Your task to perform on an android device: read, delete, or share a saved page in the chrome app Image 0: 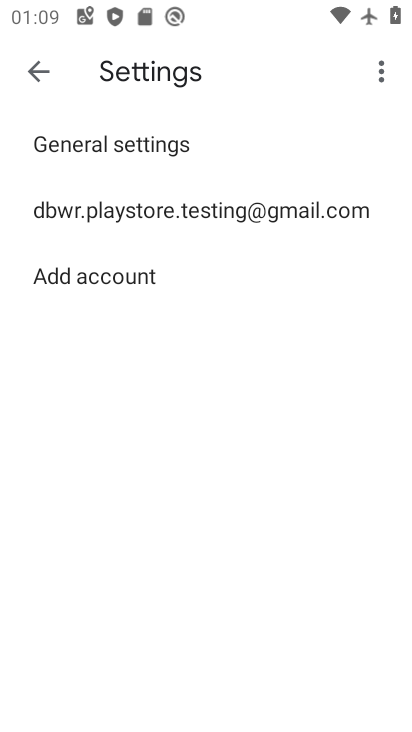
Step 0: press home button
Your task to perform on an android device: read, delete, or share a saved page in the chrome app Image 1: 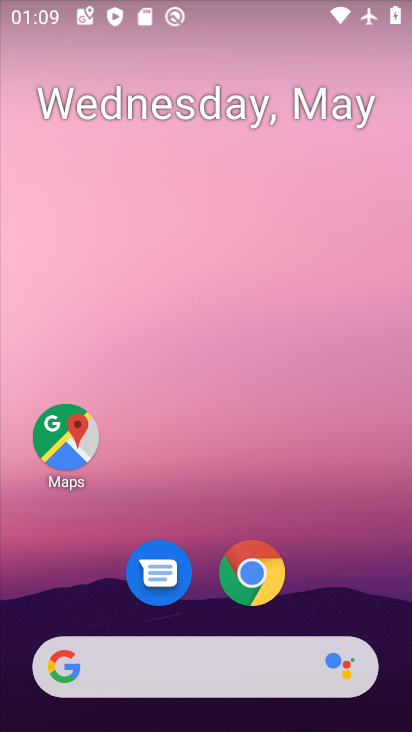
Step 1: drag from (330, 600) to (300, 218)
Your task to perform on an android device: read, delete, or share a saved page in the chrome app Image 2: 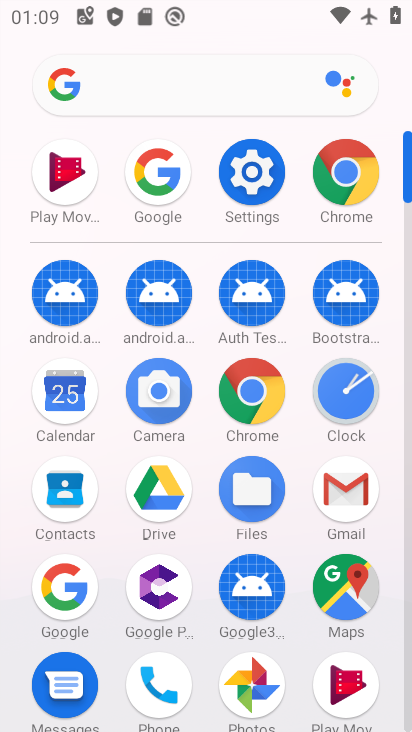
Step 2: click (343, 174)
Your task to perform on an android device: read, delete, or share a saved page in the chrome app Image 3: 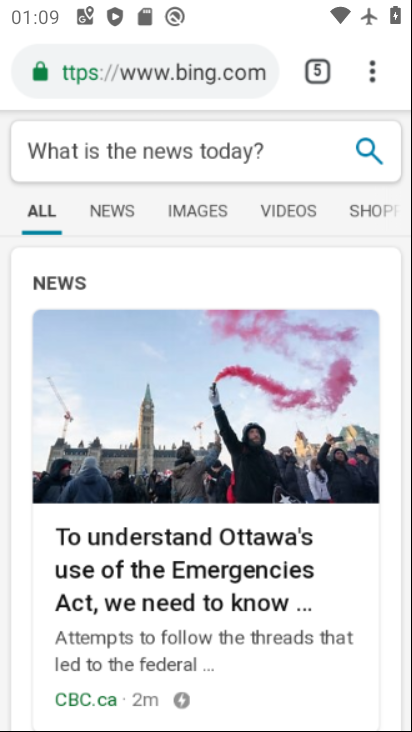
Step 3: click (364, 77)
Your task to perform on an android device: read, delete, or share a saved page in the chrome app Image 4: 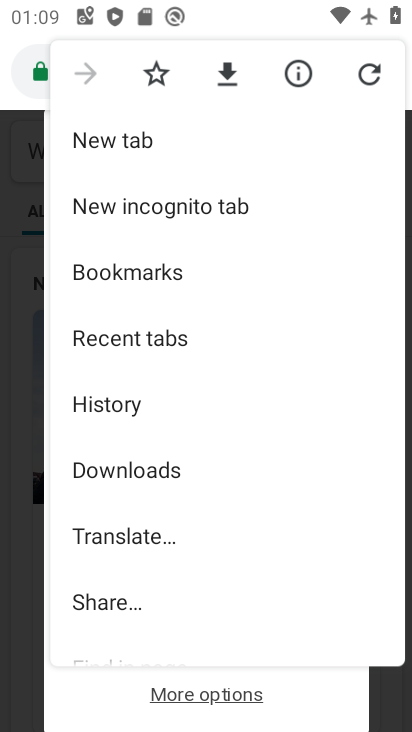
Step 4: click (152, 483)
Your task to perform on an android device: read, delete, or share a saved page in the chrome app Image 5: 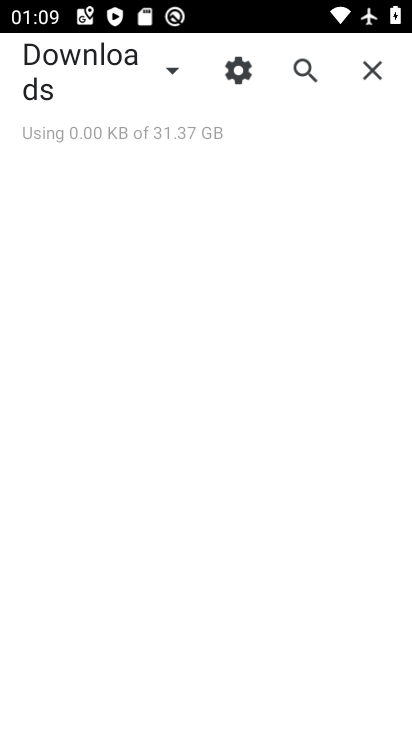
Step 5: click (171, 80)
Your task to perform on an android device: read, delete, or share a saved page in the chrome app Image 6: 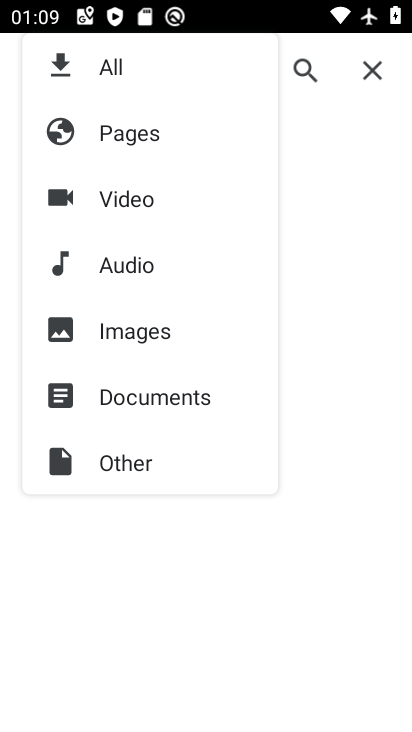
Step 6: click (136, 150)
Your task to perform on an android device: read, delete, or share a saved page in the chrome app Image 7: 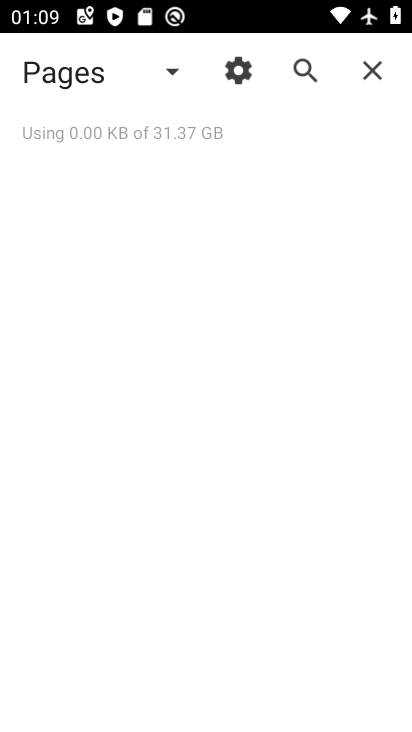
Step 7: task complete